Your task to perform on an android device: Go to ESPN.com Image 0: 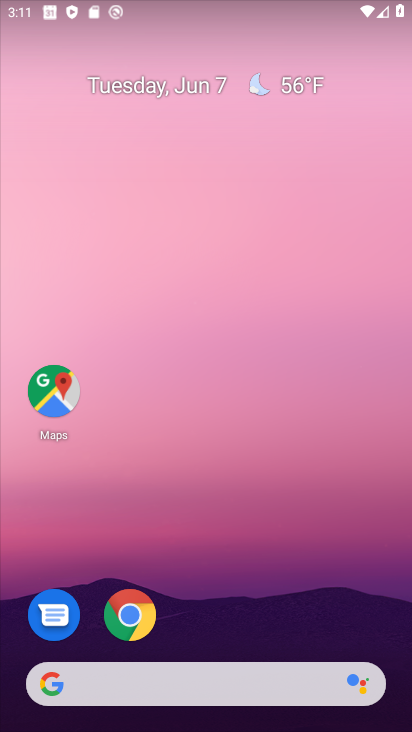
Step 0: click (110, 616)
Your task to perform on an android device: Go to ESPN.com Image 1: 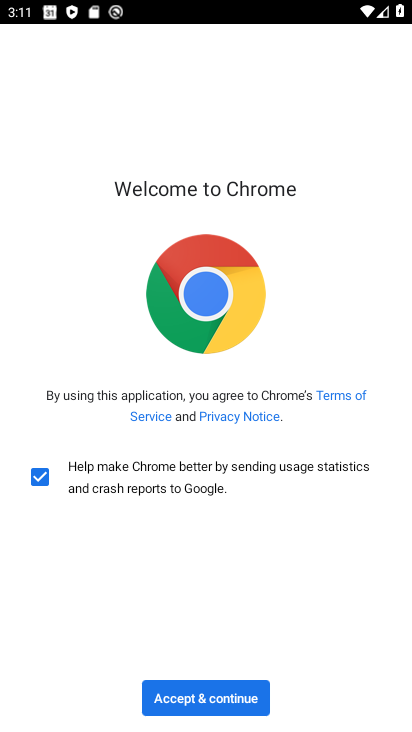
Step 1: click (185, 690)
Your task to perform on an android device: Go to ESPN.com Image 2: 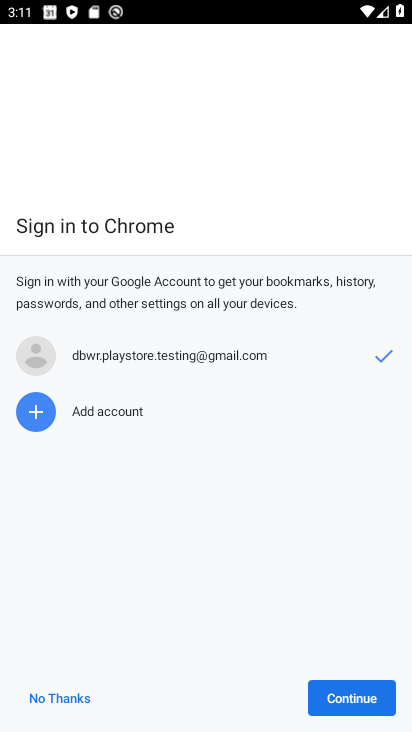
Step 2: click (316, 699)
Your task to perform on an android device: Go to ESPN.com Image 3: 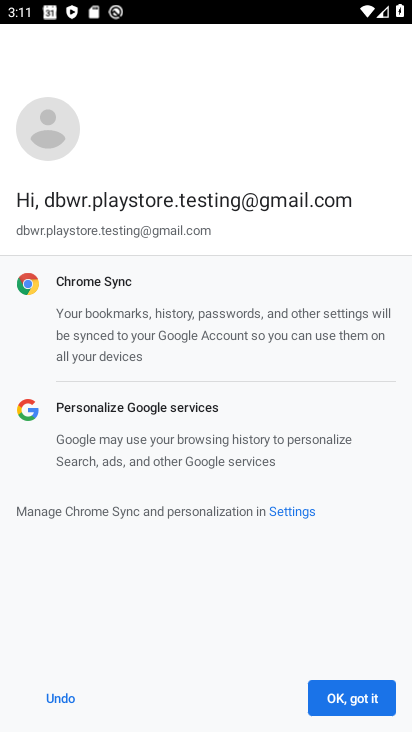
Step 3: click (316, 699)
Your task to perform on an android device: Go to ESPN.com Image 4: 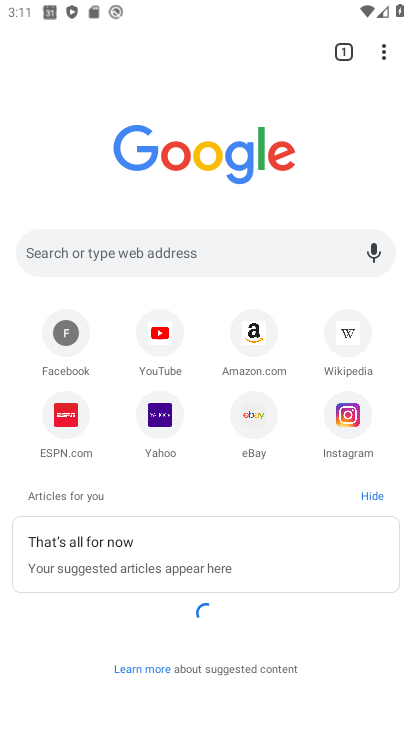
Step 4: click (75, 410)
Your task to perform on an android device: Go to ESPN.com Image 5: 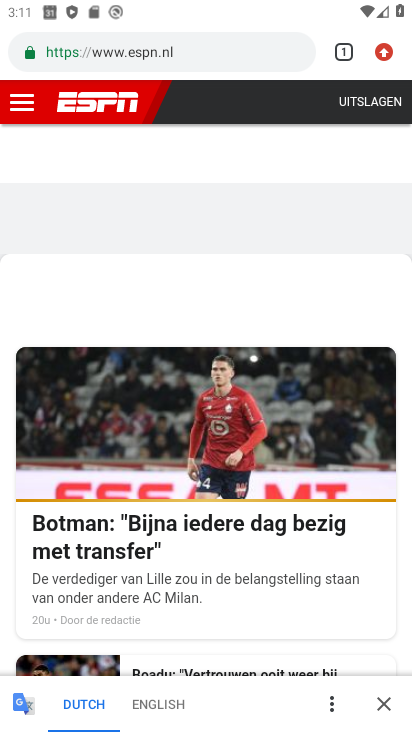
Step 5: task complete